Your task to perform on an android device: Go to display settings Image 0: 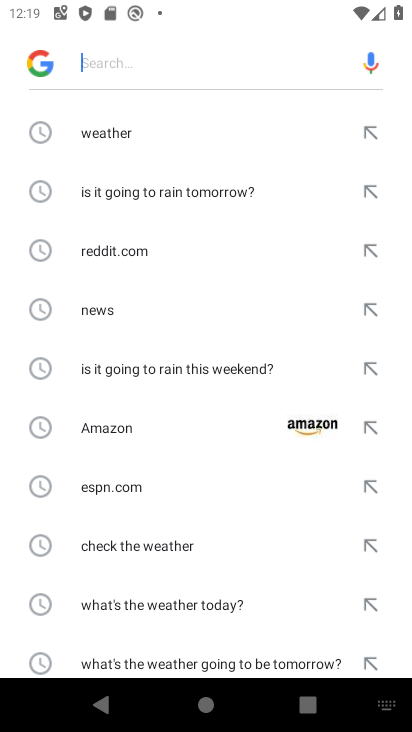
Step 0: press home button
Your task to perform on an android device: Go to display settings Image 1: 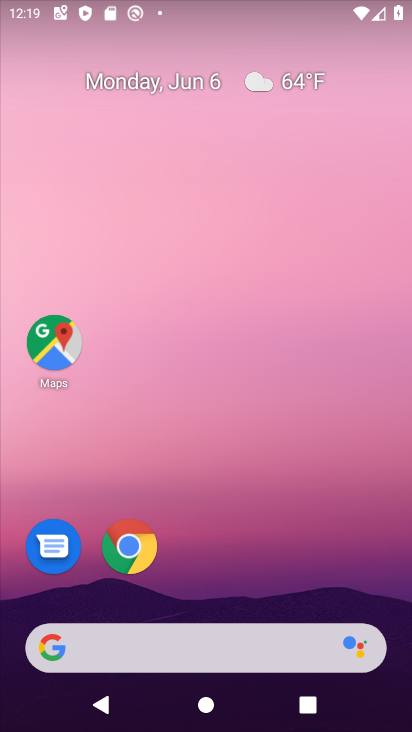
Step 1: drag from (200, 561) to (196, 132)
Your task to perform on an android device: Go to display settings Image 2: 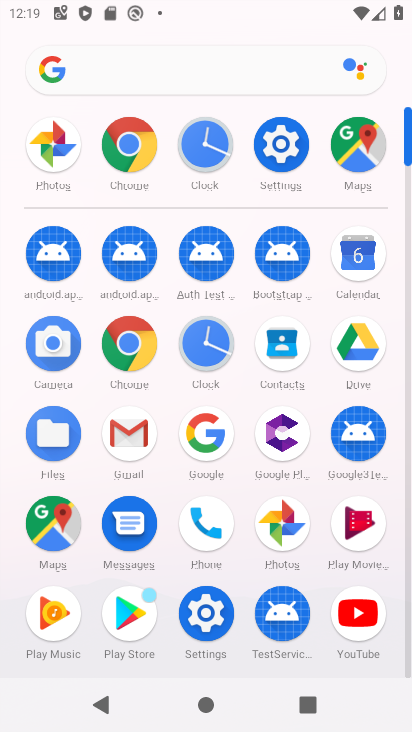
Step 2: click (280, 137)
Your task to perform on an android device: Go to display settings Image 3: 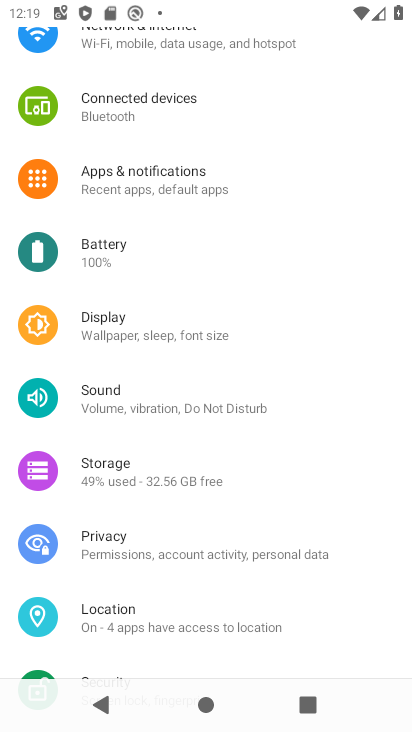
Step 3: click (114, 332)
Your task to perform on an android device: Go to display settings Image 4: 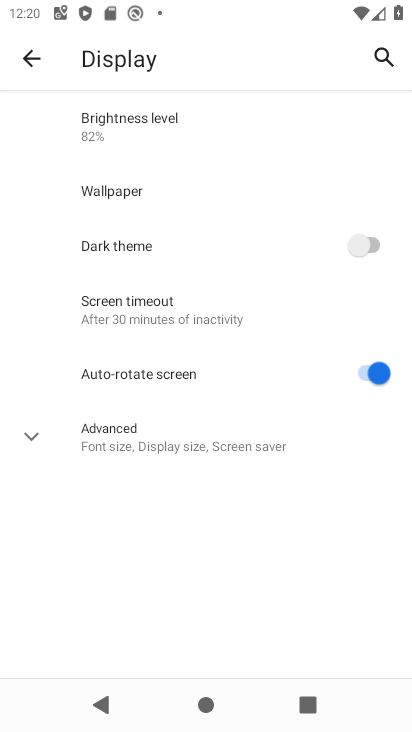
Step 4: task complete